Your task to perform on an android device: toggle wifi Image 0: 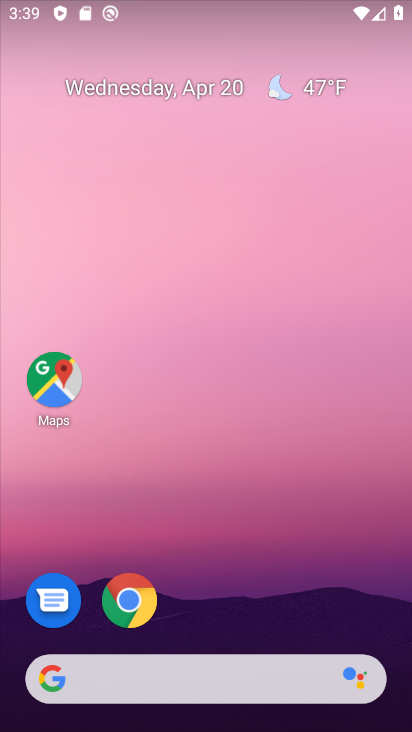
Step 0: drag from (240, 485) to (163, 200)
Your task to perform on an android device: toggle wifi Image 1: 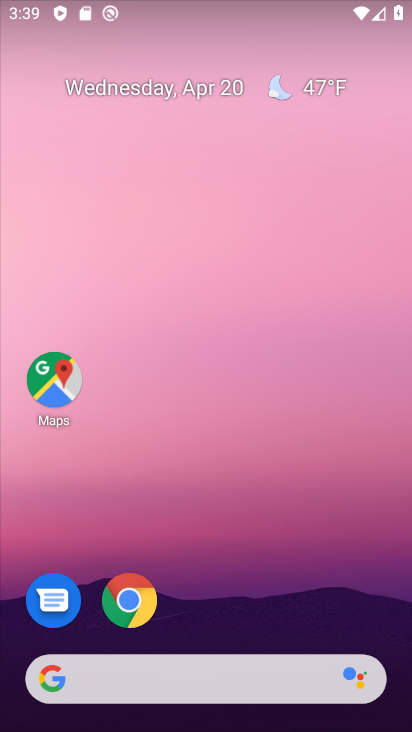
Step 1: drag from (328, 555) to (191, 162)
Your task to perform on an android device: toggle wifi Image 2: 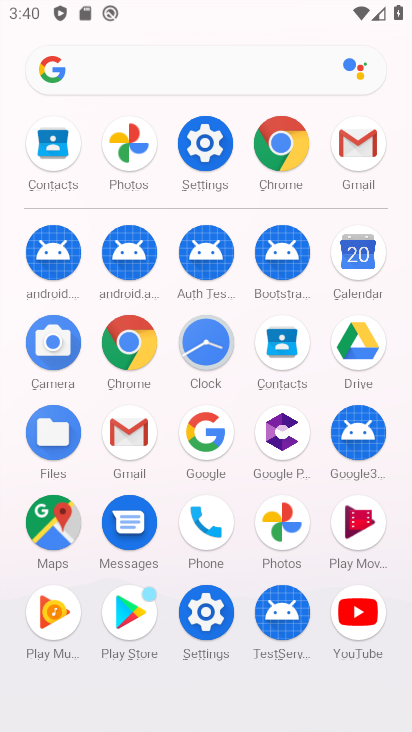
Step 2: click (196, 142)
Your task to perform on an android device: toggle wifi Image 3: 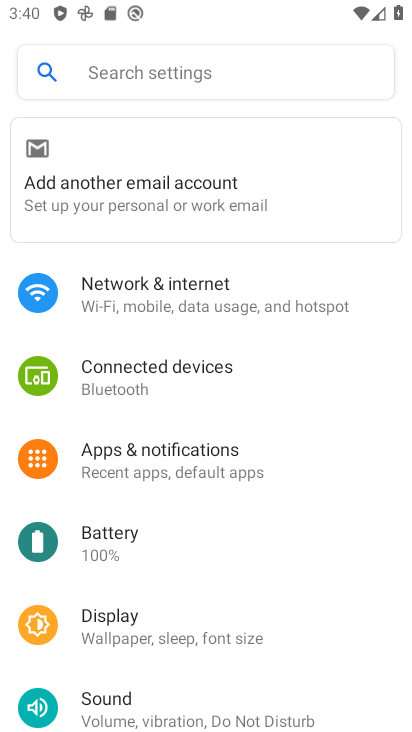
Step 3: click (222, 313)
Your task to perform on an android device: toggle wifi Image 4: 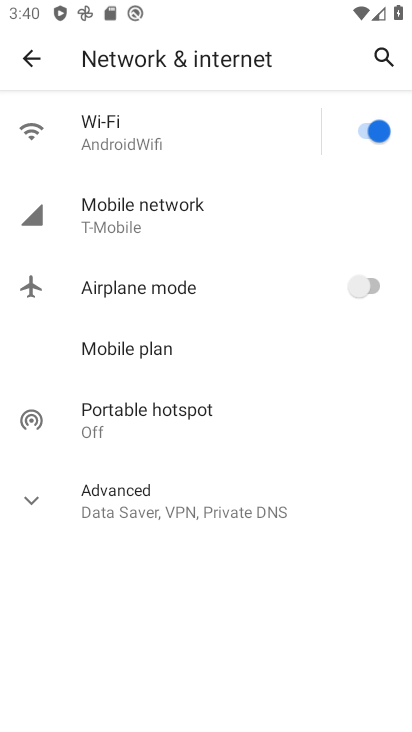
Step 4: click (86, 144)
Your task to perform on an android device: toggle wifi Image 5: 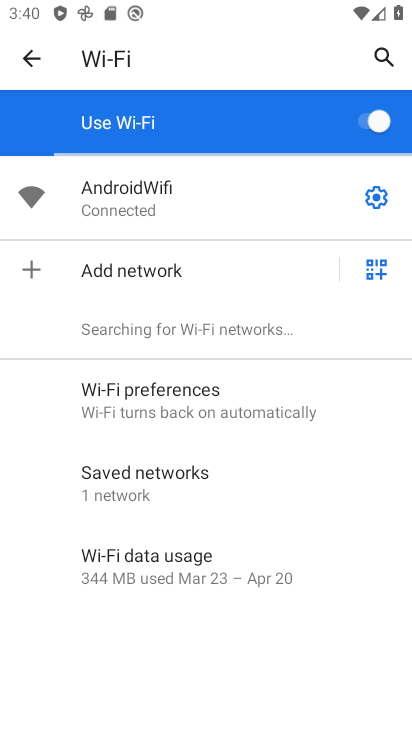
Step 5: task complete